Your task to perform on an android device: Search for pizza restaurants on Maps Image 0: 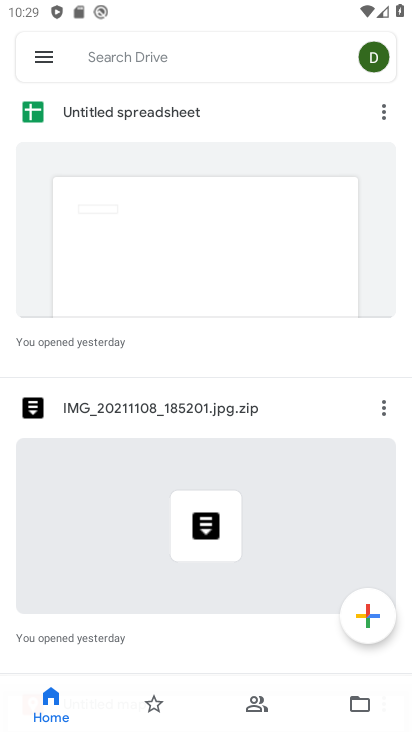
Step 0: press home button
Your task to perform on an android device: Search for pizza restaurants on Maps Image 1: 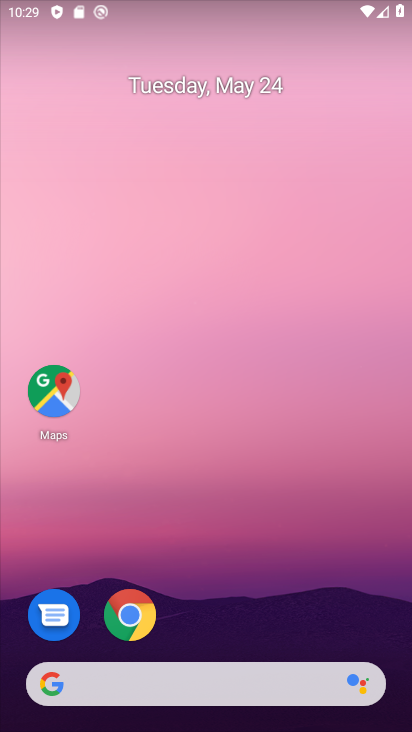
Step 1: click (59, 401)
Your task to perform on an android device: Search for pizza restaurants on Maps Image 2: 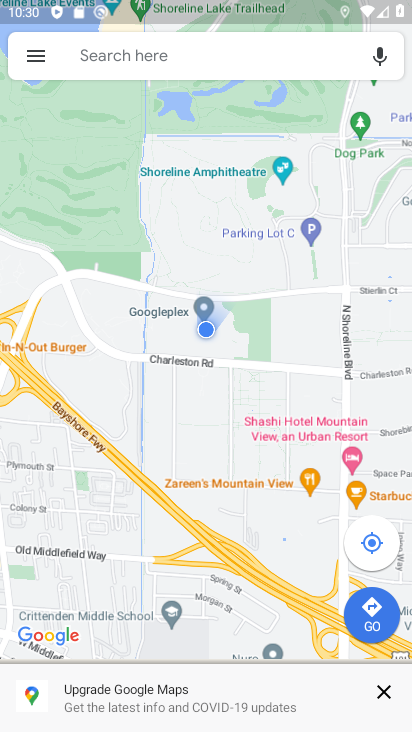
Step 2: click (221, 54)
Your task to perform on an android device: Search for pizza restaurants on Maps Image 3: 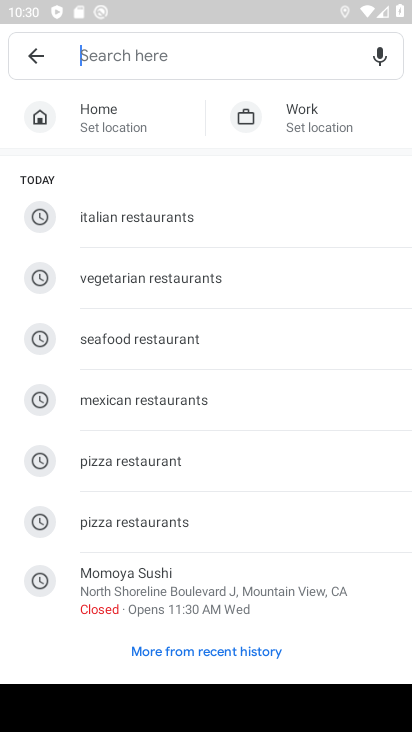
Step 3: click (142, 528)
Your task to perform on an android device: Search for pizza restaurants on Maps Image 4: 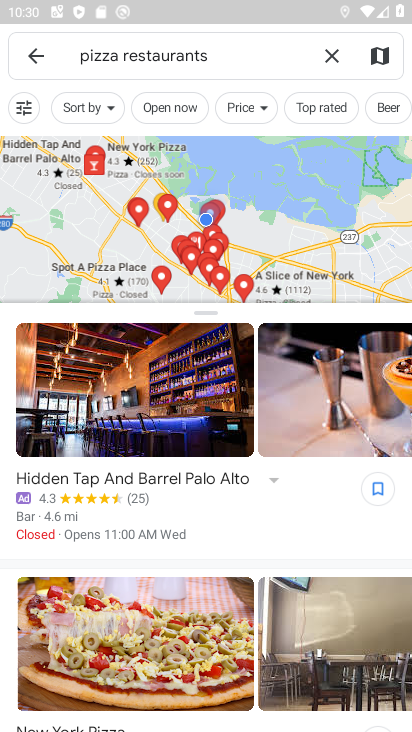
Step 4: task complete